Your task to perform on an android device: move a message to another label in the gmail app Image 0: 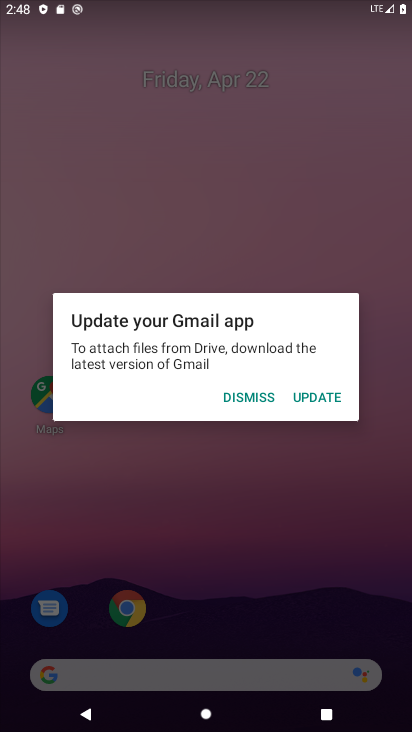
Step 0: click (254, 392)
Your task to perform on an android device: move a message to another label in the gmail app Image 1: 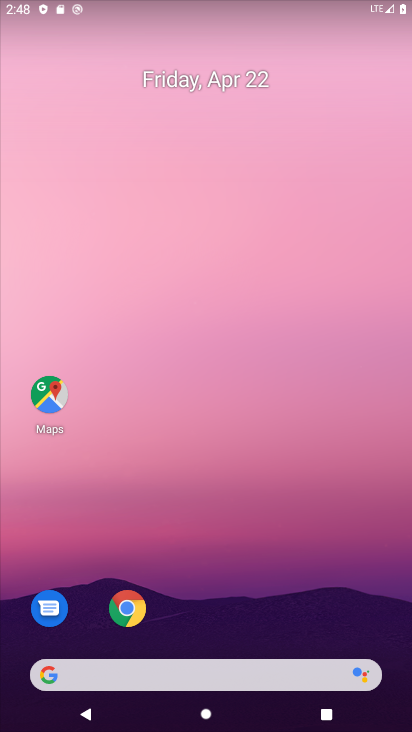
Step 1: drag from (291, 696) to (203, 197)
Your task to perform on an android device: move a message to another label in the gmail app Image 2: 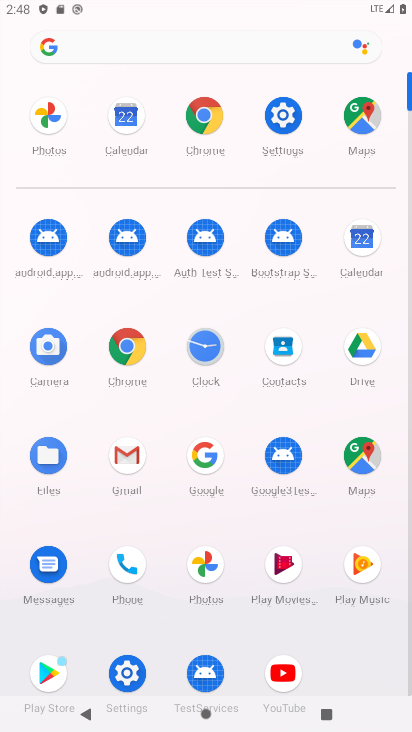
Step 2: click (124, 441)
Your task to perform on an android device: move a message to another label in the gmail app Image 3: 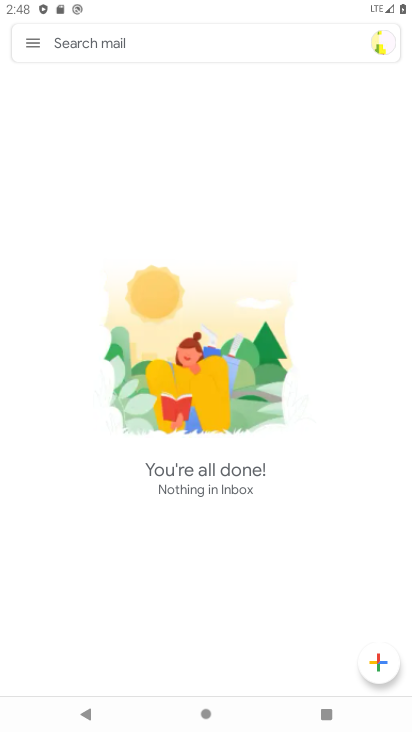
Step 3: click (30, 40)
Your task to perform on an android device: move a message to another label in the gmail app Image 4: 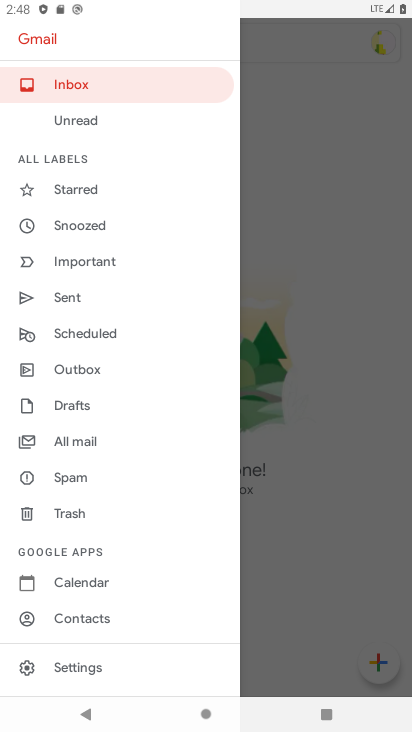
Step 4: click (63, 664)
Your task to perform on an android device: move a message to another label in the gmail app Image 5: 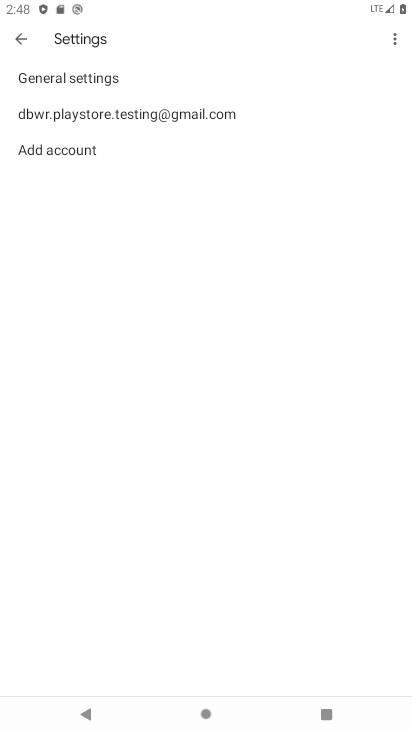
Step 5: click (142, 127)
Your task to perform on an android device: move a message to another label in the gmail app Image 6: 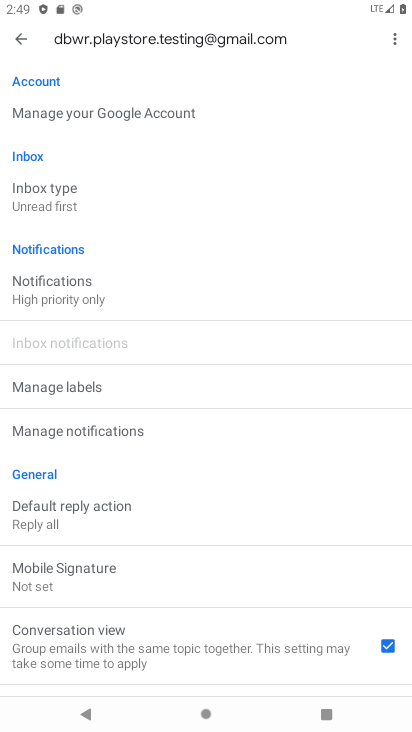
Step 6: click (80, 394)
Your task to perform on an android device: move a message to another label in the gmail app Image 7: 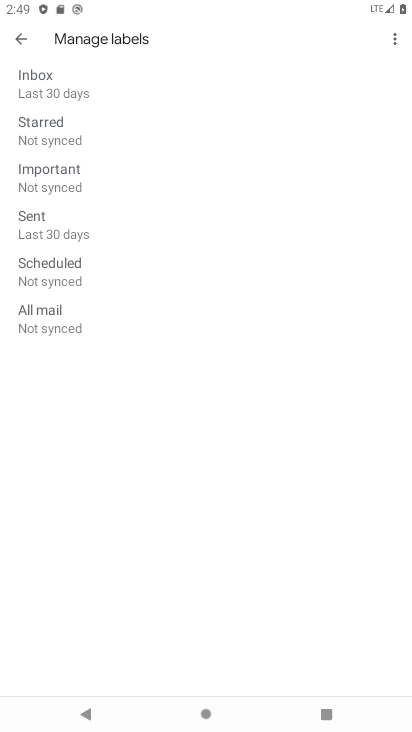
Step 7: click (95, 138)
Your task to perform on an android device: move a message to another label in the gmail app Image 8: 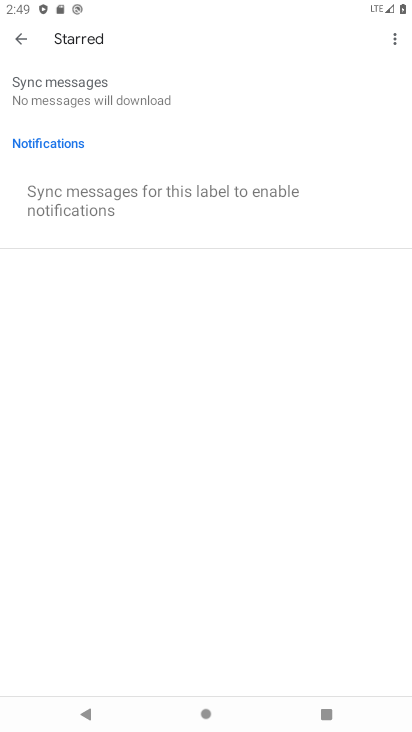
Step 8: task complete